Your task to perform on an android device: set an alarm Image 0: 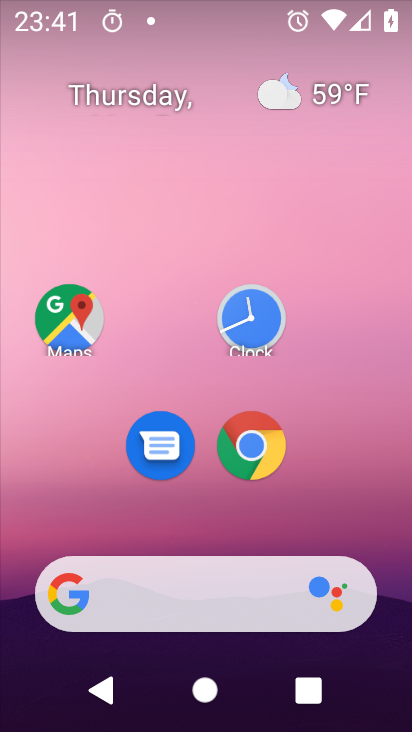
Step 0: click (266, 327)
Your task to perform on an android device: set an alarm Image 1: 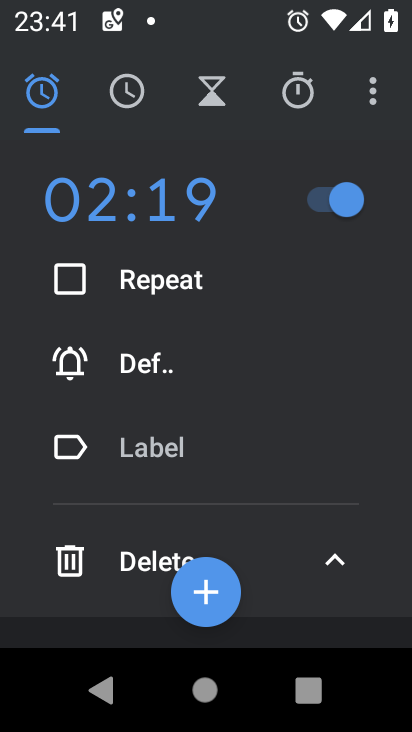
Step 1: click (211, 598)
Your task to perform on an android device: set an alarm Image 2: 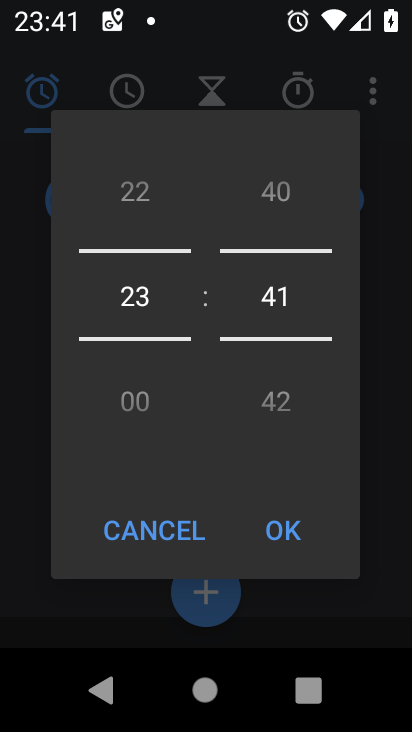
Step 2: drag from (141, 366) to (97, 185)
Your task to perform on an android device: set an alarm Image 3: 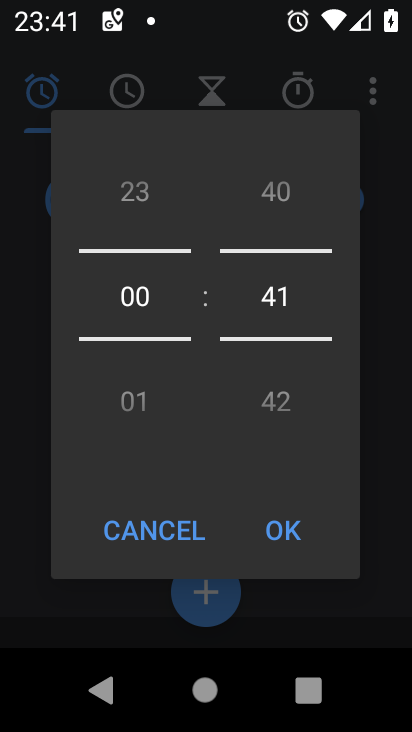
Step 3: click (300, 545)
Your task to perform on an android device: set an alarm Image 4: 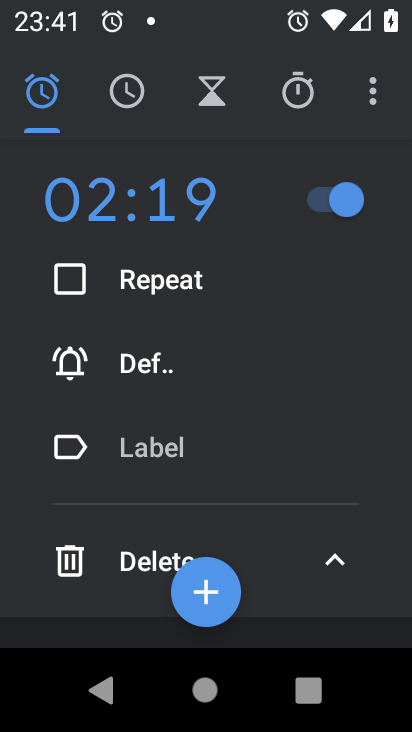
Step 4: task complete